Your task to perform on an android device: Search for sushi restaurants on Maps Image 0: 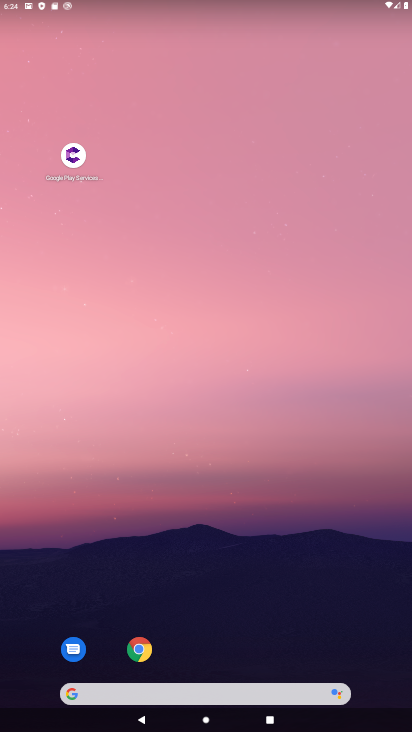
Step 0: drag from (229, 686) to (262, 119)
Your task to perform on an android device: Search for sushi restaurants on Maps Image 1: 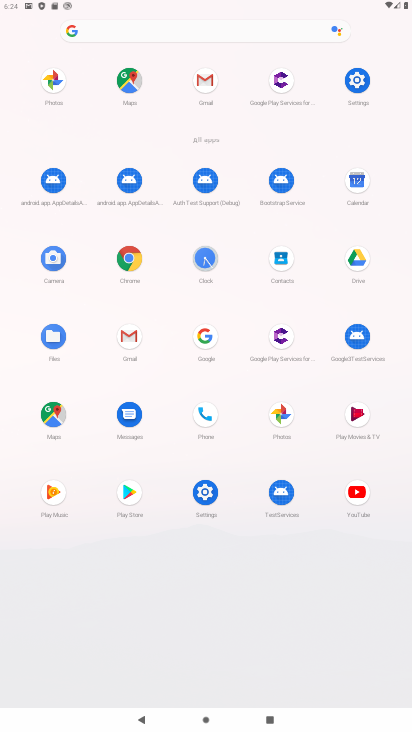
Step 1: click (52, 415)
Your task to perform on an android device: Search for sushi restaurants on Maps Image 2: 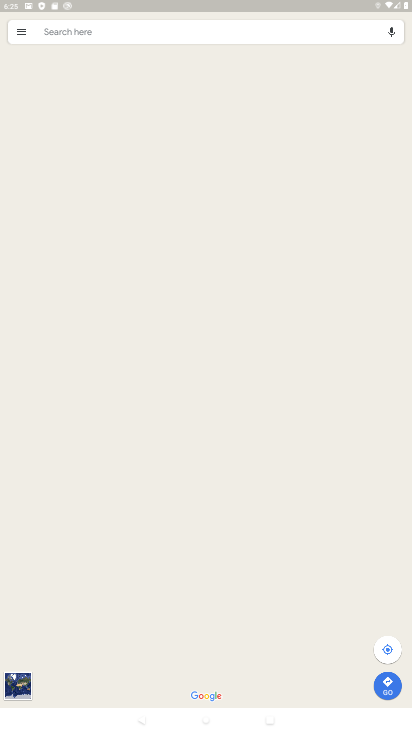
Step 2: click (223, 34)
Your task to perform on an android device: Search for sushi restaurants on Maps Image 3: 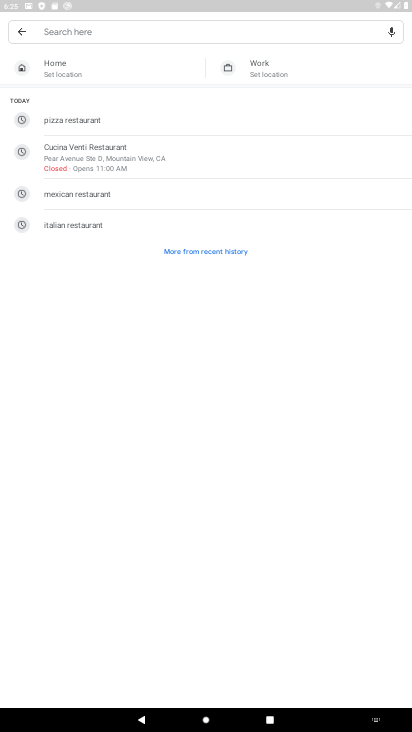
Step 3: type "sushi restaurants"
Your task to perform on an android device: Search for sushi restaurants on Maps Image 4: 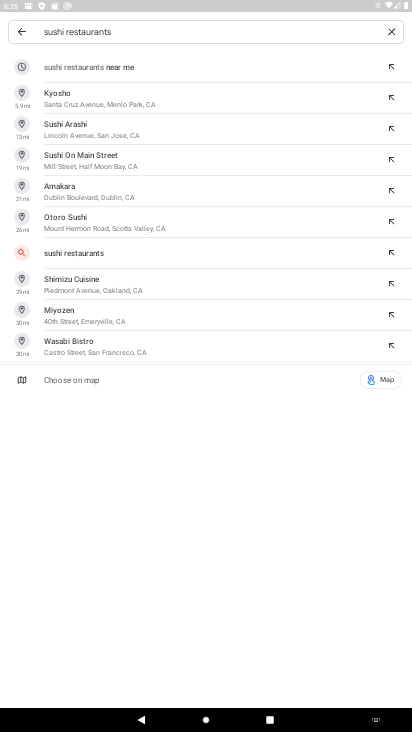
Step 4: click (99, 247)
Your task to perform on an android device: Search for sushi restaurants on Maps Image 5: 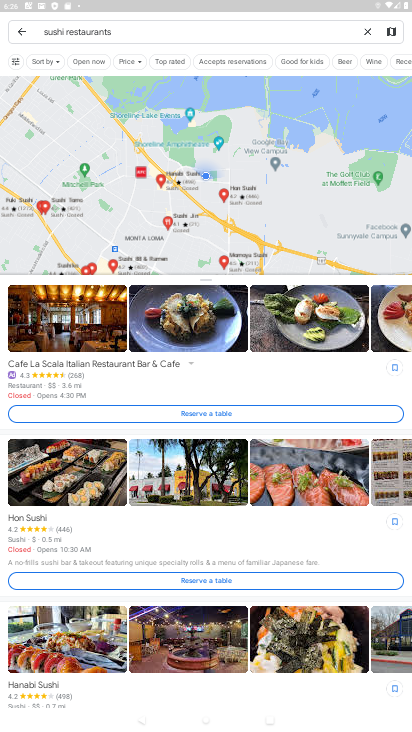
Step 5: task complete